Your task to perform on an android device: Go to Maps Image 0: 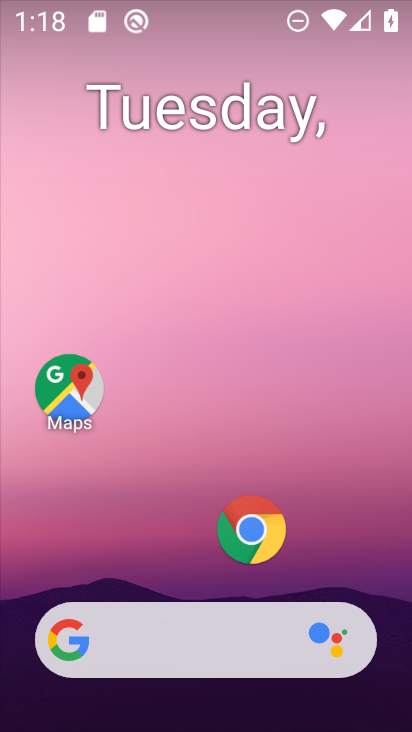
Step 0: press home button
Your task to perform on an android device: Go to Maps Image 1: 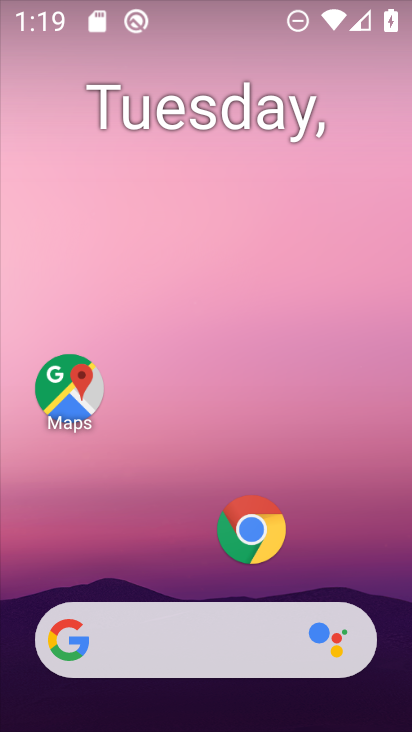
Step 1: click (96, 379)
Your task to perform on an android device: Go to Maps Image 2: 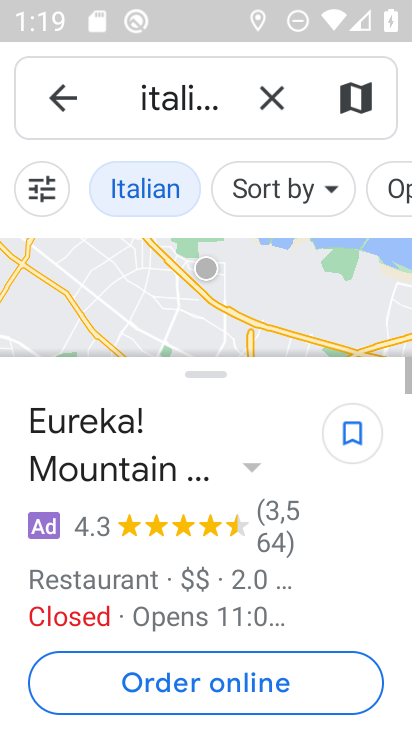
Step 2: click (65, 94)
Your task to perform on an android device: Go to Maps Image 3: 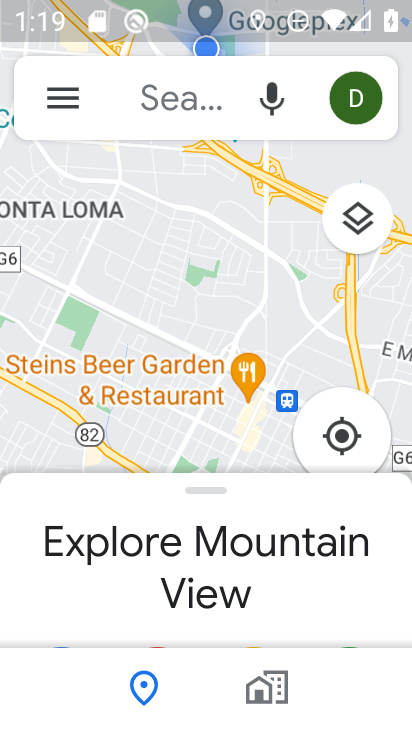
Step 3: task complete